Your task to perform on an android device: add a label to a message in the gmail app Image 0: 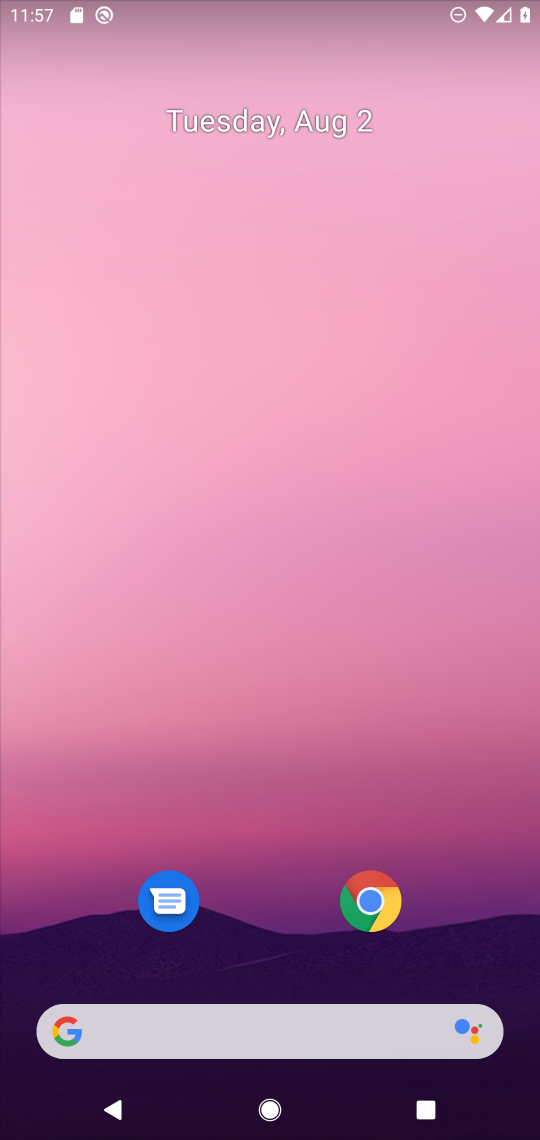
Step 0: drag from (491, 954) to (447, 204)
Your task to perform on an android device: add a label to a message in the gmail app Image 1: 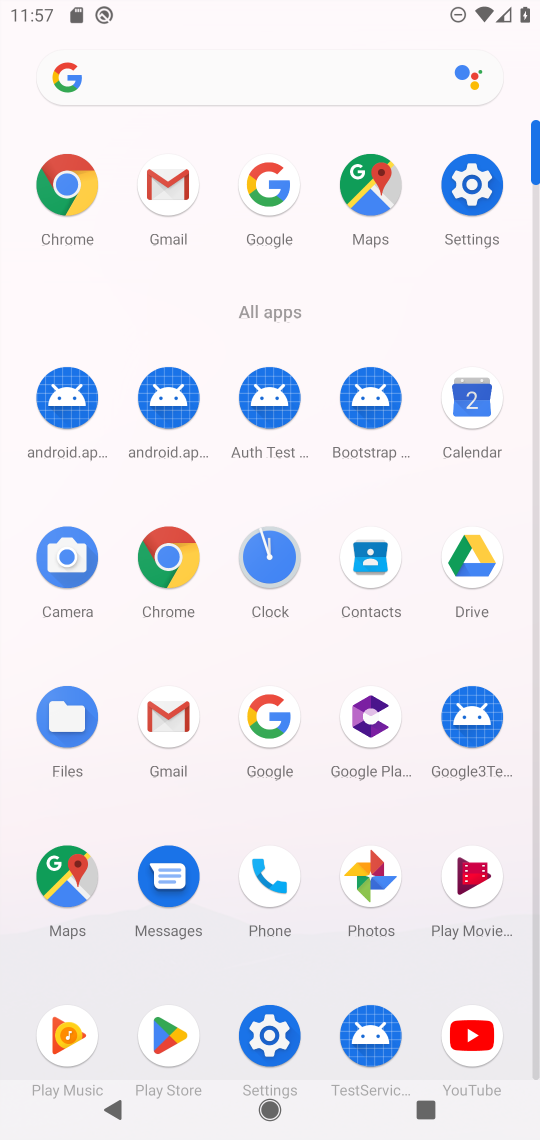
Step 1: click (154, 726)
Your task to perform on an android device: add a label to a message in the gmail app Image 2: 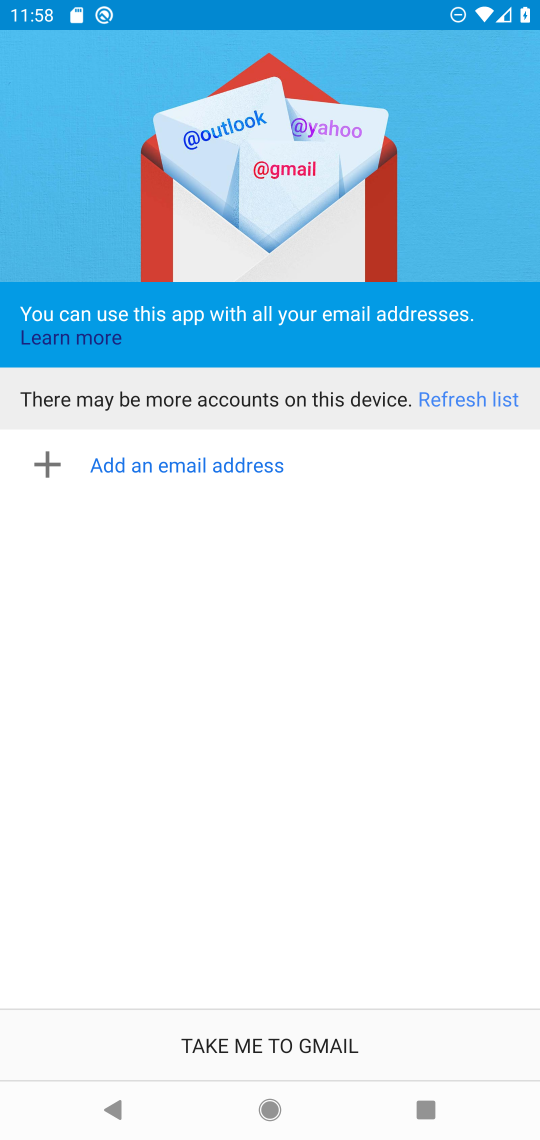
Step 2: task complete